Your task to perform on an android device: Is it going to rain today? Image 0: 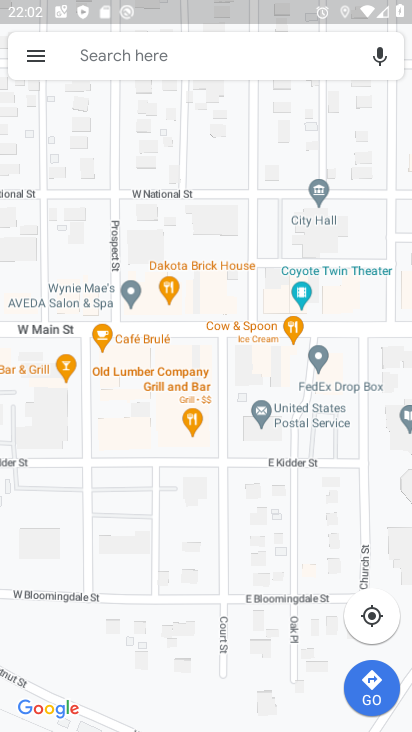
Step 0: press home button
Your task to perform on an android device: Is it going to rain today? Image 1: 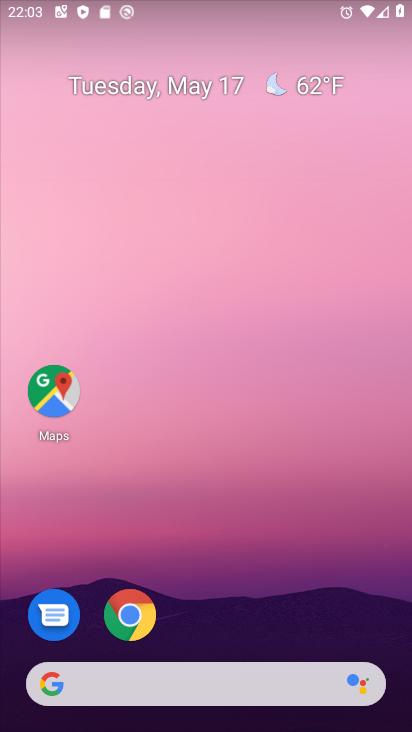
Step 1: drag from (44, 717) to (246, 588)
Your task to perform on an android device: Is it going to rain today? Image 2: 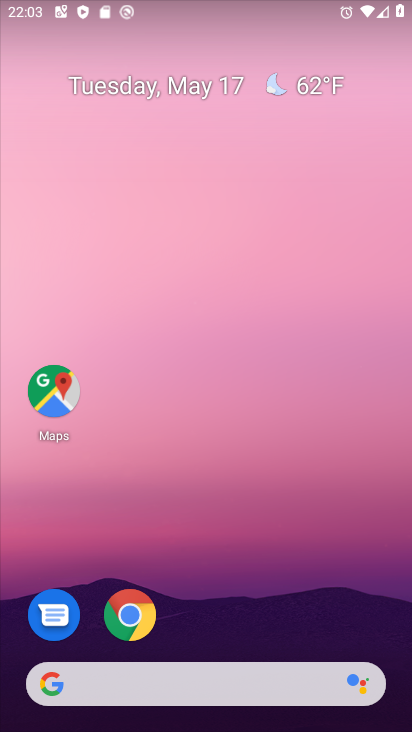
Step 2: click (130, 612)
Your task to perform on an android device: Is it going to rain today? Image 3: 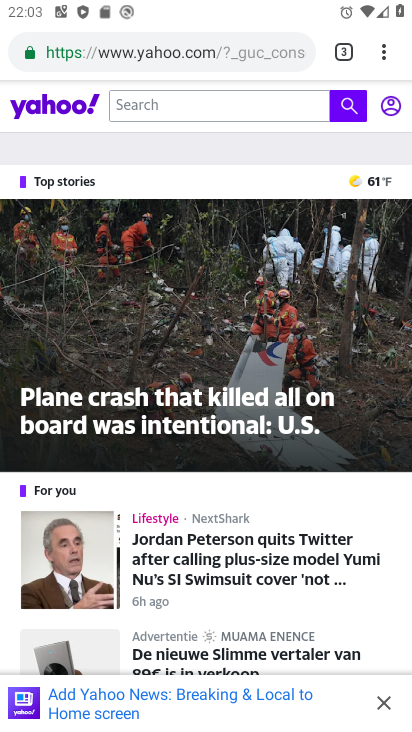
Step 3: drag from (380, 40) to (210, 615)
Your task to perform on an android device: Is it going to rain today? Image 4: 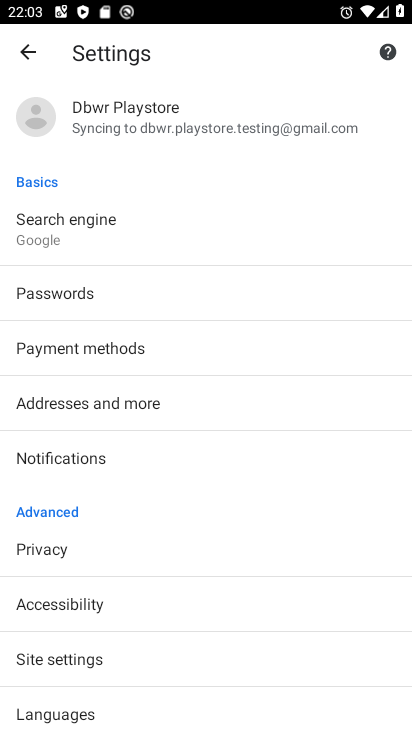
Step 4: click (24, 54)
Your task to perform on an android device: Is it going to rain today? Image 5: 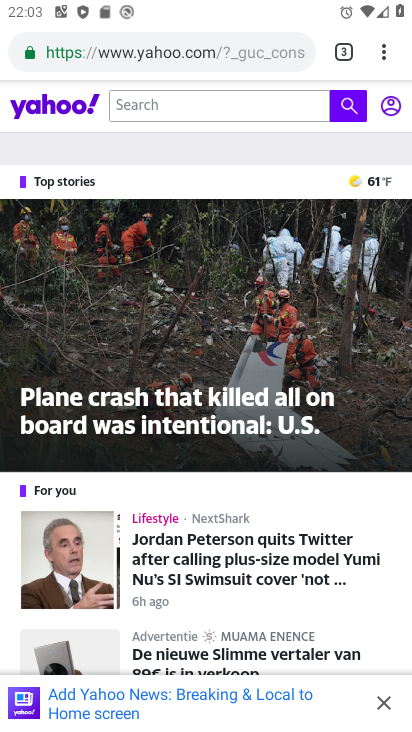
Step 5: click (163, 53)
Your task to perform on an android device: Is it going to rain today? Image 6: 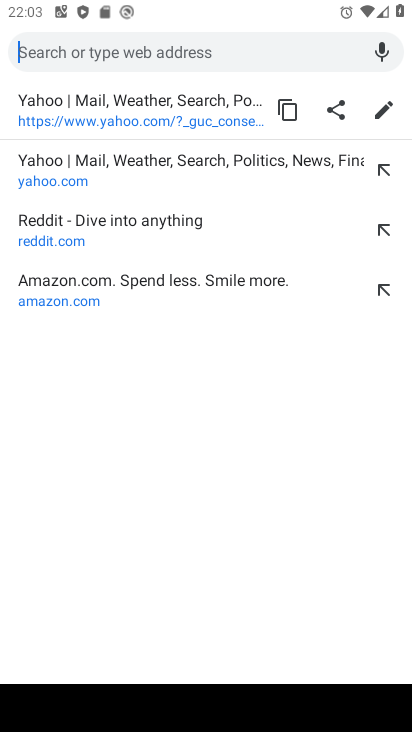
Step 6: type "Is it going to rain today?"
Your task to perform on an android device: Is it going to rain today? Image 7: 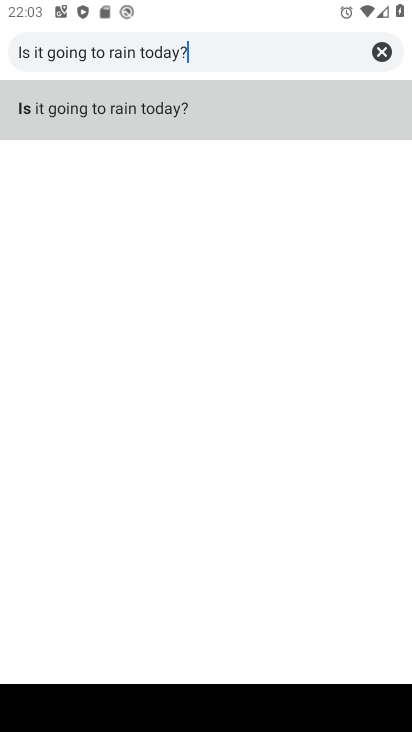
Step 7: type ""
Your task to perform on an android device: Is it going to rain today? Image 8: 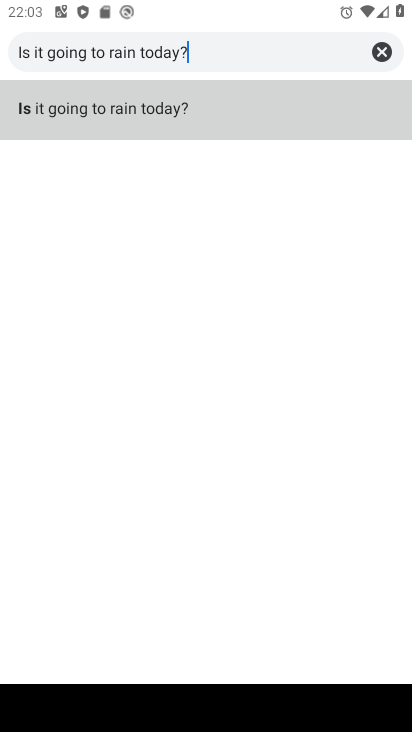
Step 8: click (137, 99)
Your task to perform on an android device: Is it going to rain today? Image 9: 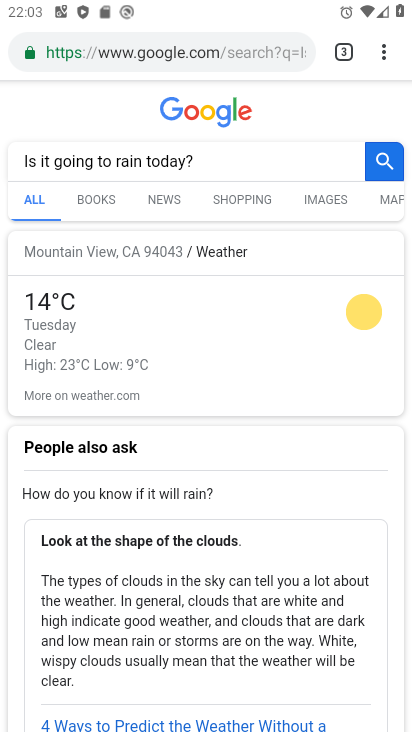
Step 9: task complete